Your task to perform on an android device: see creations saved in the google photos Image 0: 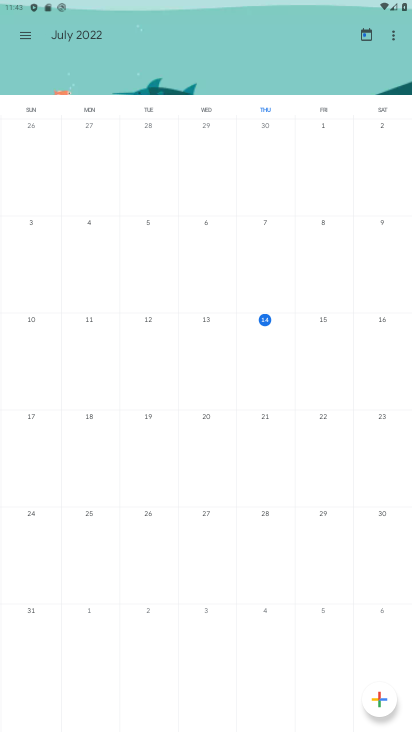
Step 0: press home button
Your task to perform on an android device: see creations saved in the google photos Image 1: 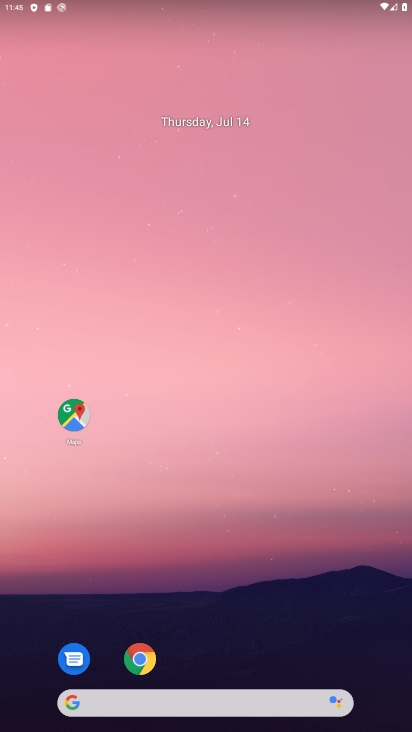
Step 1: drag from (279, 662) to (195, 0)
Your task to perform on an android device: see creations saved in the google photos Image 2: 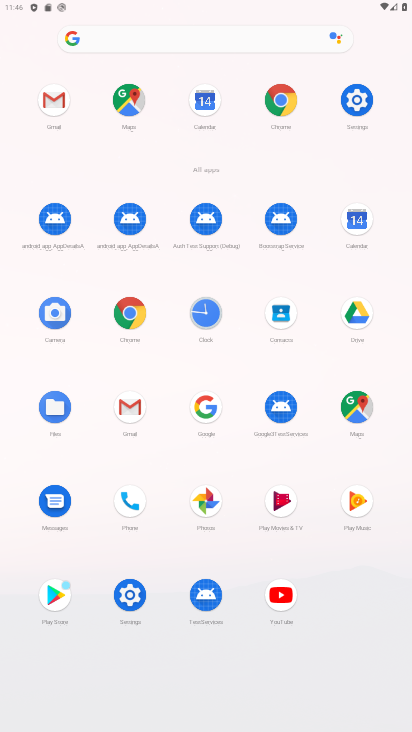
Step 2: click (202, 502)
Your task to perform on an android device: see creations saved in the google photos Image 3: 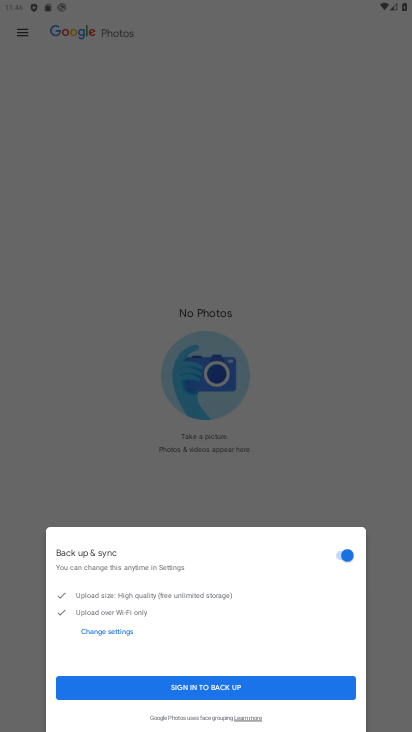
Step 3: click (190, 686)
Your task to perform on an android device: see creations saved in the google photos Image 4: 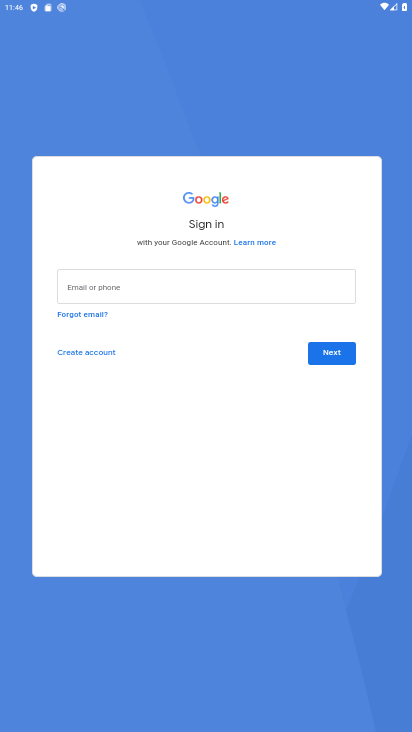
Step 4: task complete